Your task to perform on an android device: Search for beats solo 3 on walmart, select the first entry, and add it to the cart. Image 0: 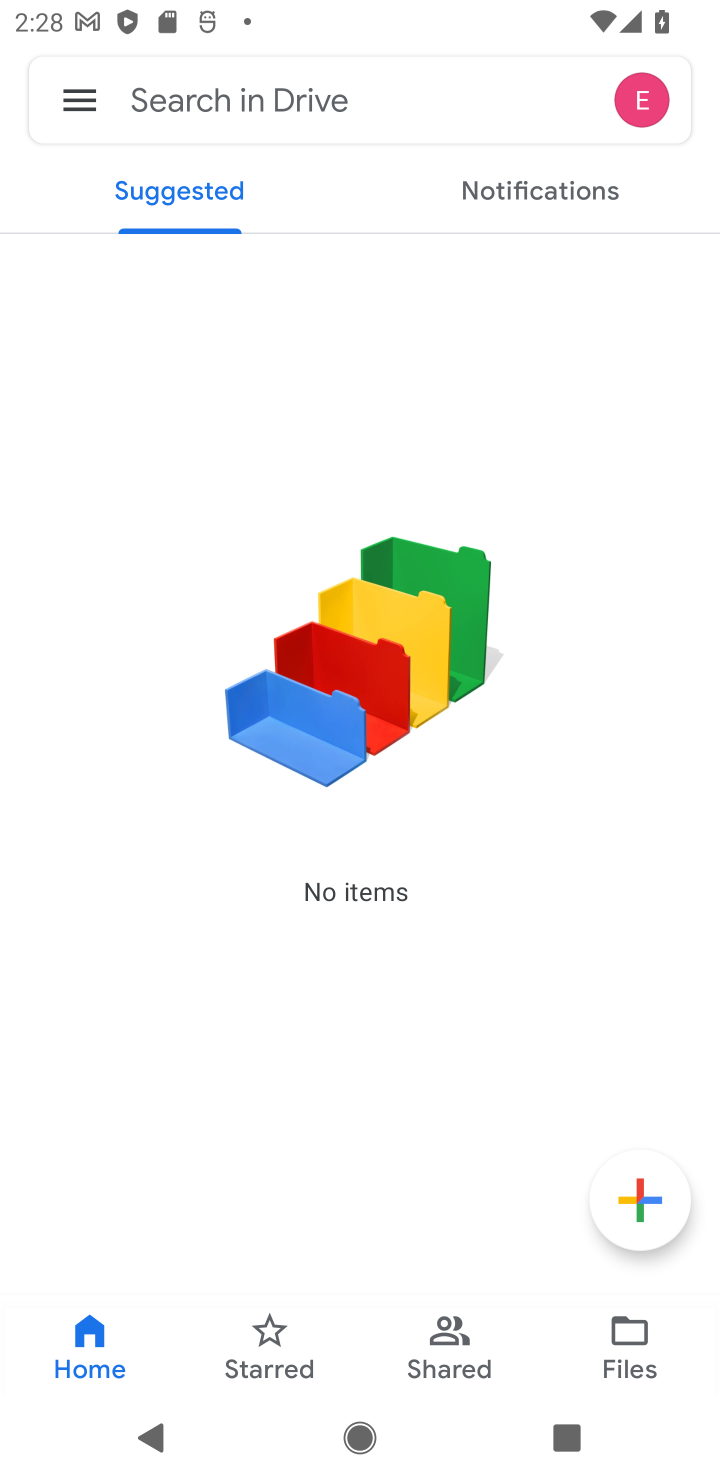
Step 0: press home button
Your task to perform on an android device: Search for beats solo 3 on walmart, select the first entry, and add it to the cart. Image 1: 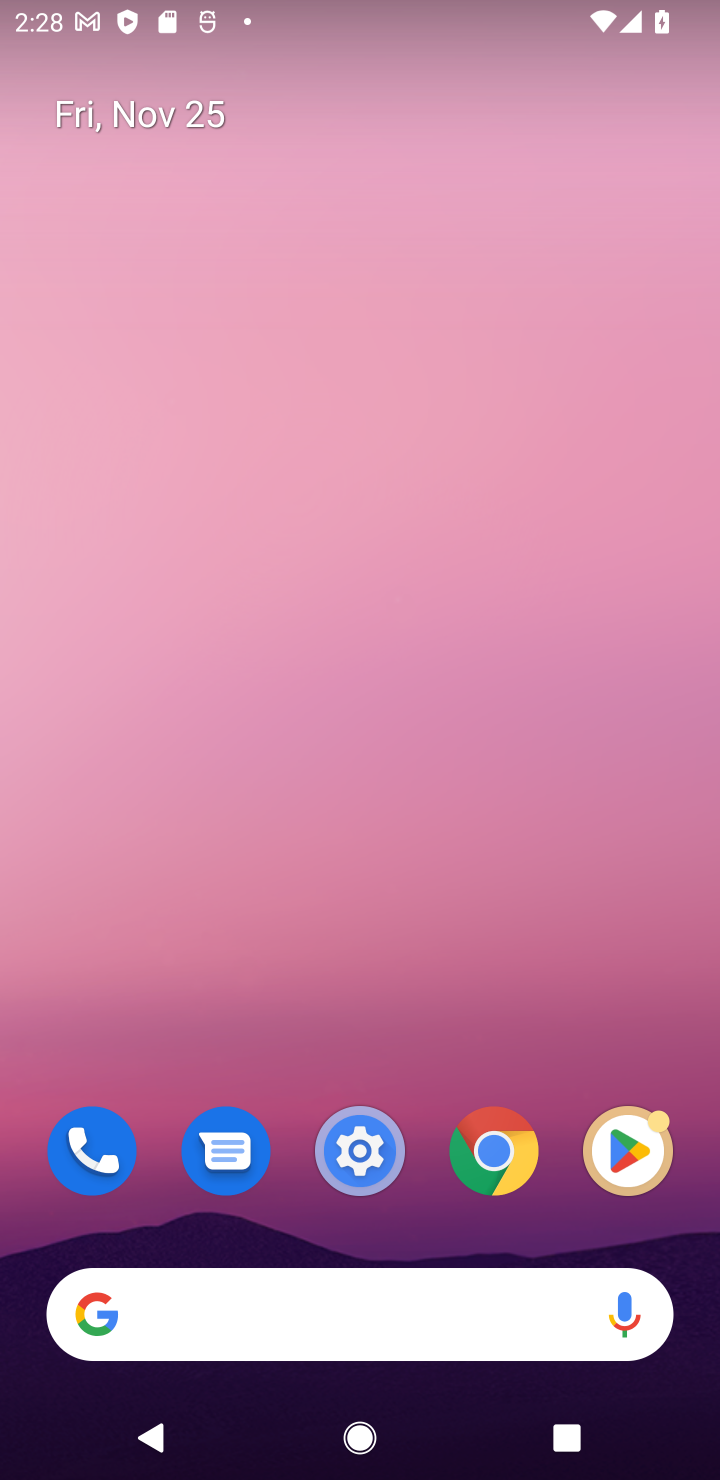
Step 1: click (368, 1345)
Your task to perform on an android device: Search for beats solo 3 on walmart, select the first entry, and add it to the cart. Image 2: 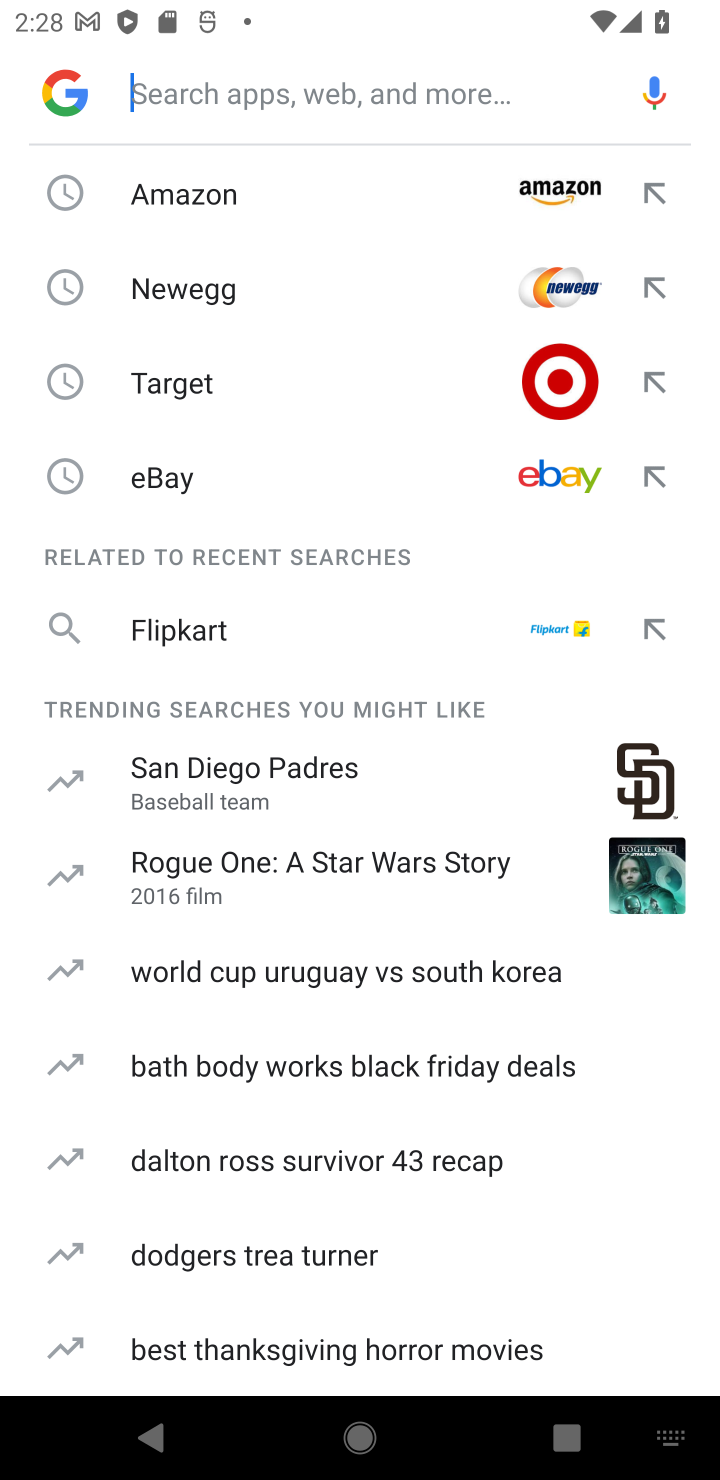
Step 2: type "walmart"
Your task to perform on an android device: Search for beats solo 3 on walmart, select the first entry, and add it to the cart. Image 3: 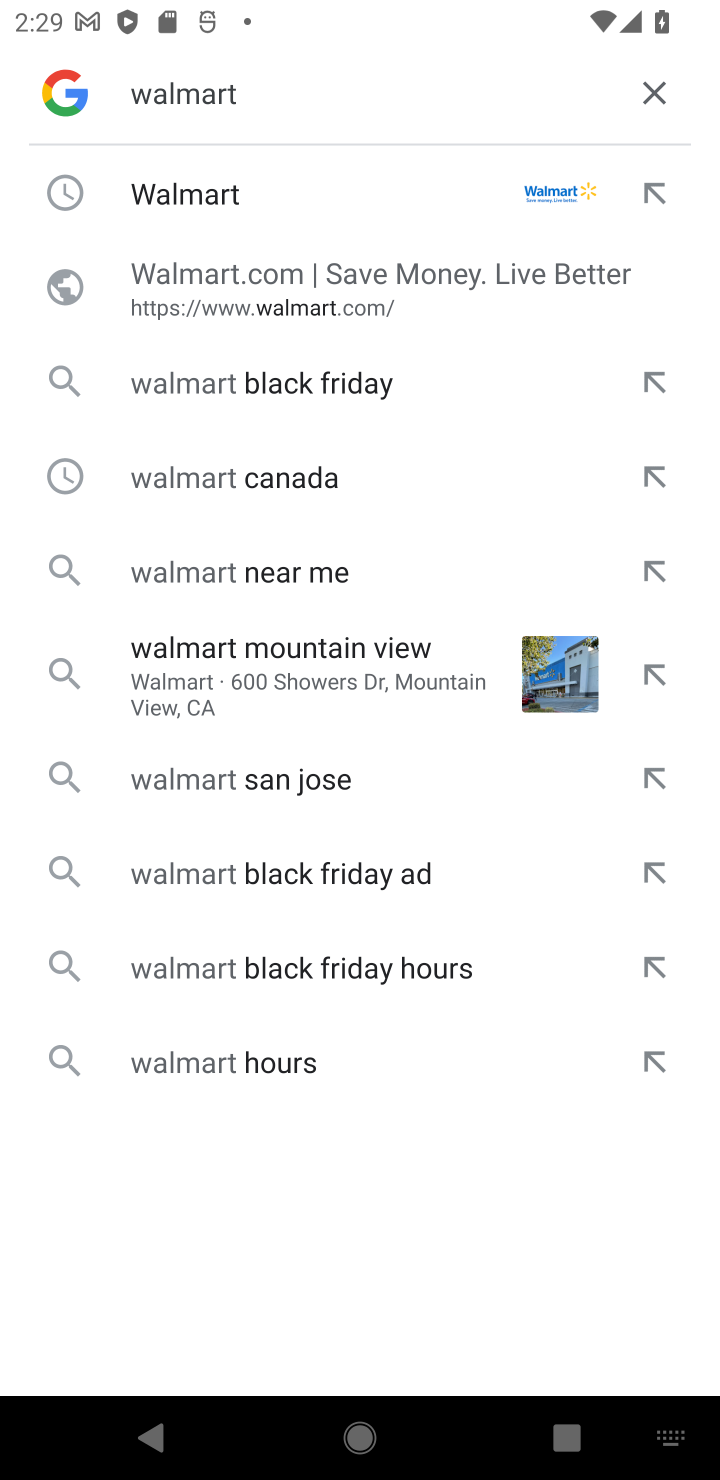
Step 3: click (212, 186)
Your task to perform on an android device: Search for beats solo 3 on walmart, select the first entry, and add it to the cart. Image 4: 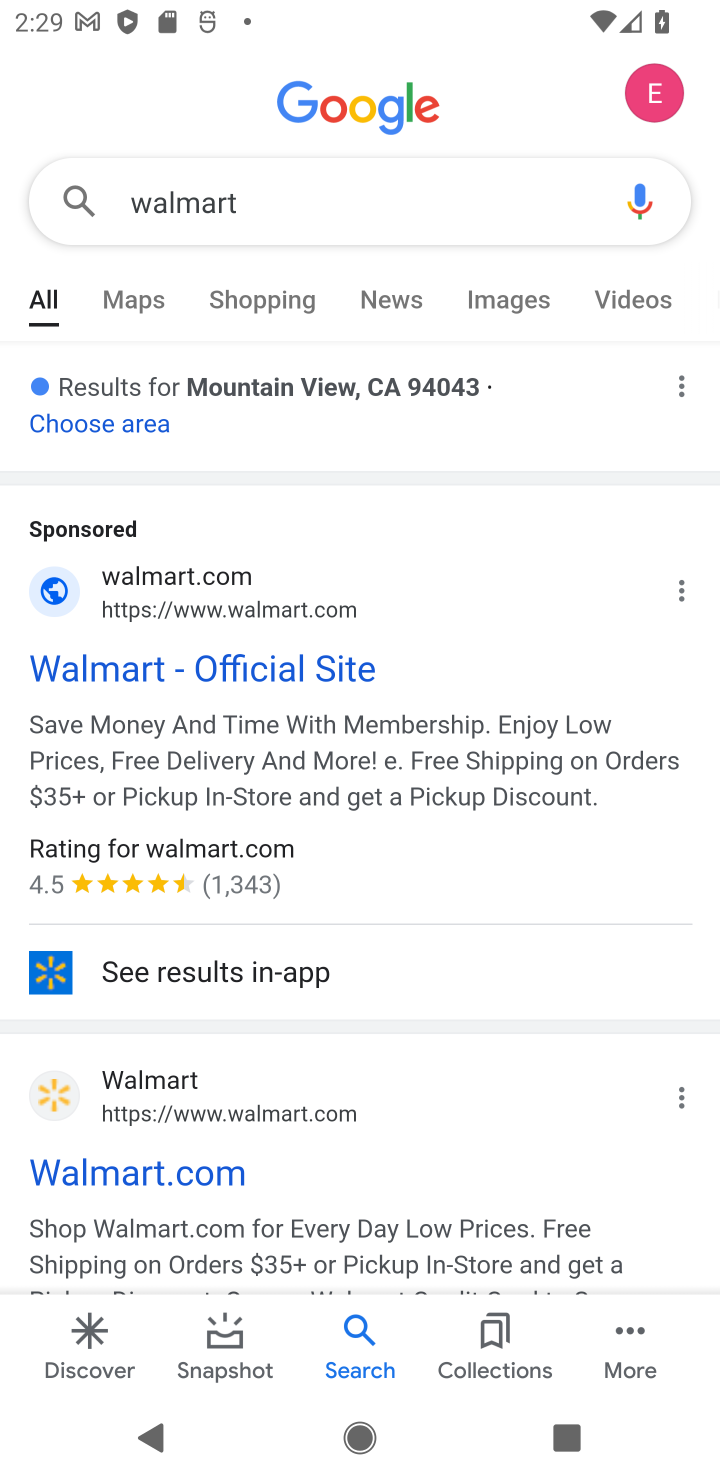
Step 4: click (151, 621)
Your task to perform on an android device: Search for beats solo 3 on walmart, select the first entry, and add it to the cart. Image 5: 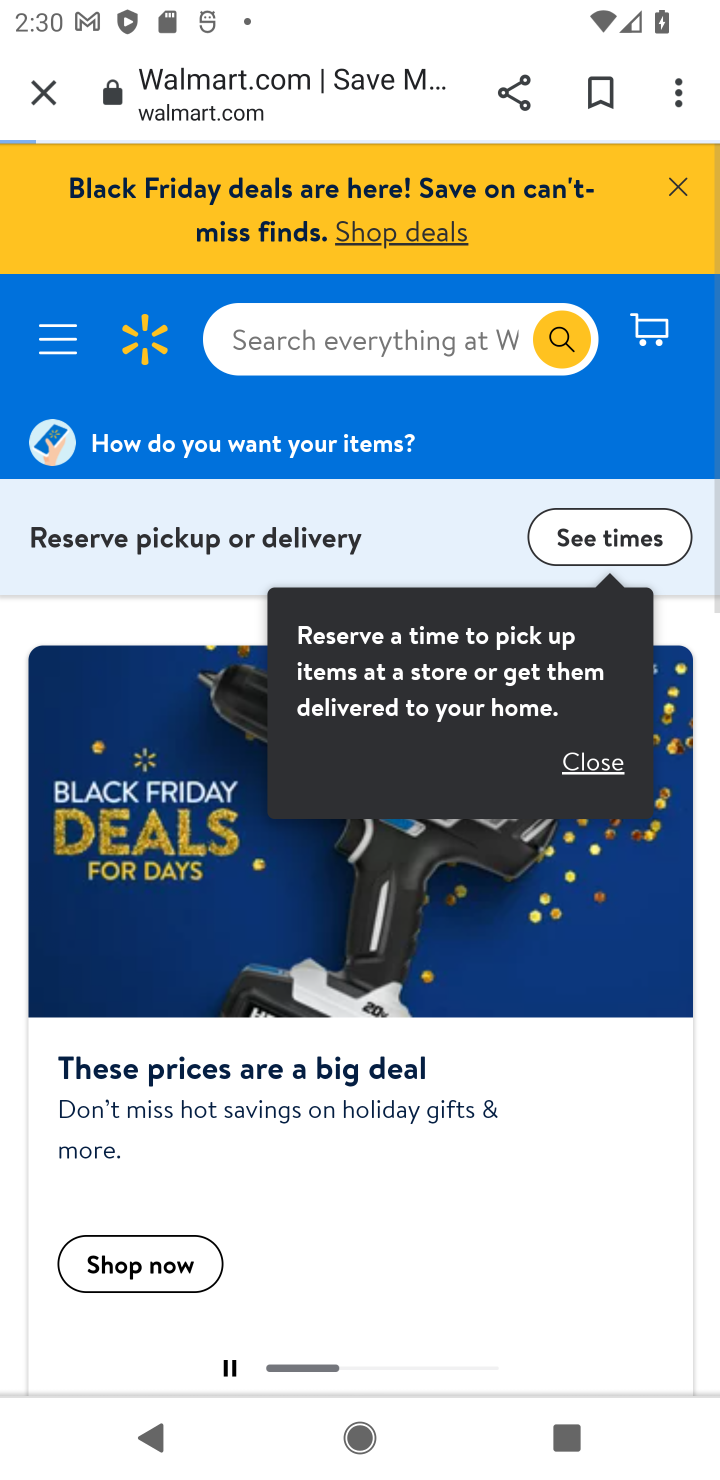
Step 5: click (382, 359)
Your task to perform on an android device: Search for beats solo 3 on walmart, select the first entry, and add it to the cart. Image 6: 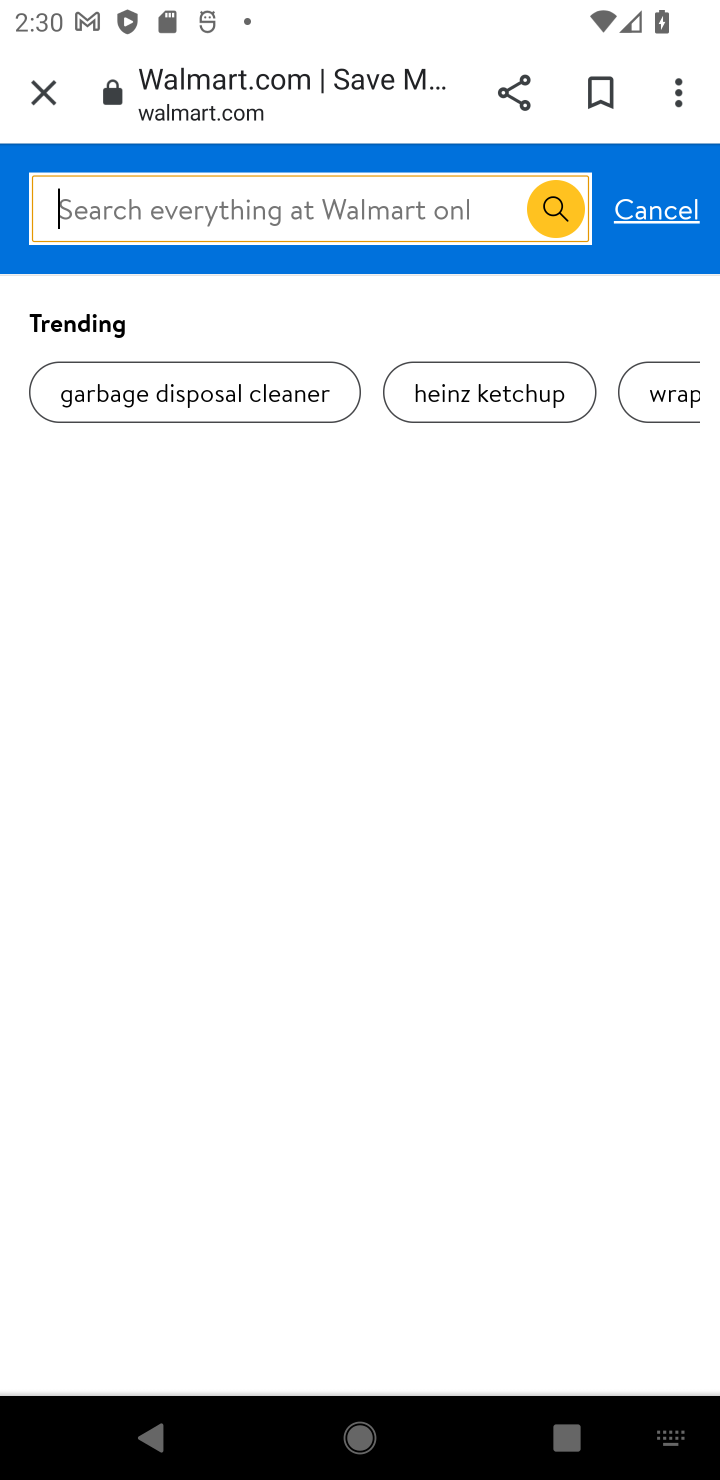
Step 6: task complete